Your task to perform on an android device: open app "The Home Depot" (install if not already installed) Image 0: 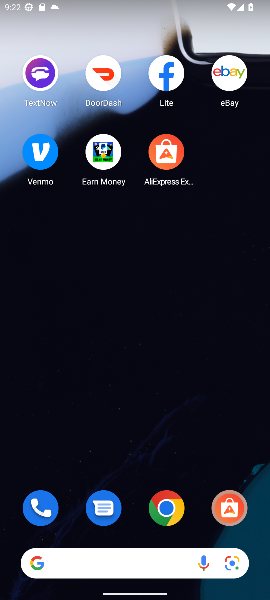
Step 0: drag from (106, 538) to (77, 130)
Your task to perform on an android device: open app "The Home Depot" (install if not already installed) Image 1: 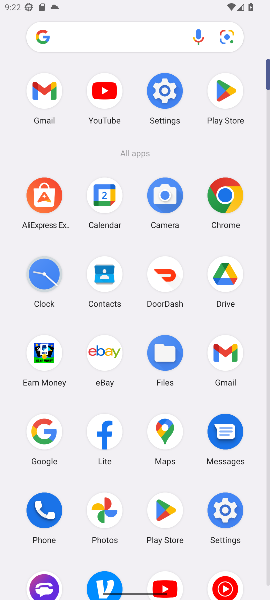
Step 1: click (233, 101)
Your task to perform on an android device: open app "The Home Depot" (install if not already installed) Image 2: 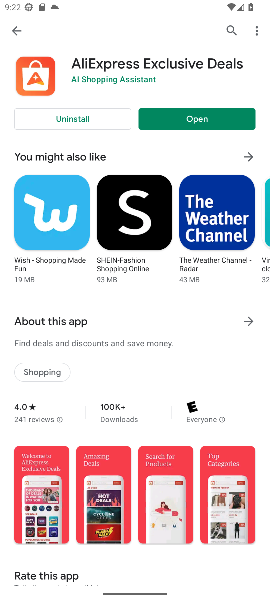
Step 2: click (18, 36)
Your task to perform on an android device: open app "The Home Depot" (install if not already installed) Image 3: 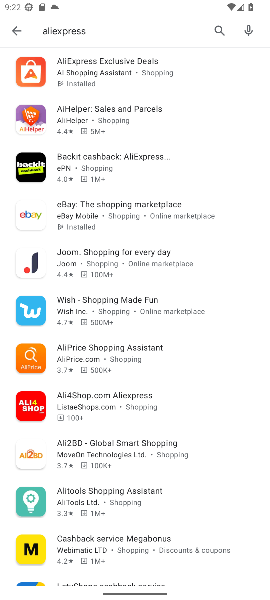
Step 3: click (221, 29)
Your task to perform on an android device: open app "The Home Depot" (install if not already installed) Image 4: 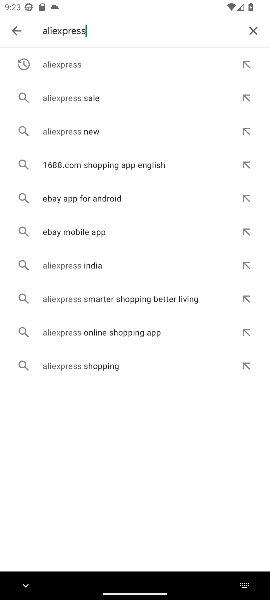
Step 4: click (251, 31)
Your task to perform on an android device: open app "The Home Depot" (install if not already installed) Image 5: 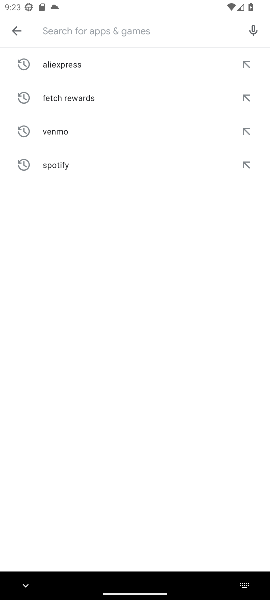
Step 5: type "The Home Depot"
Your task to perform on an android device: open app "The Home Depot" (install if not already installed) Image 6: 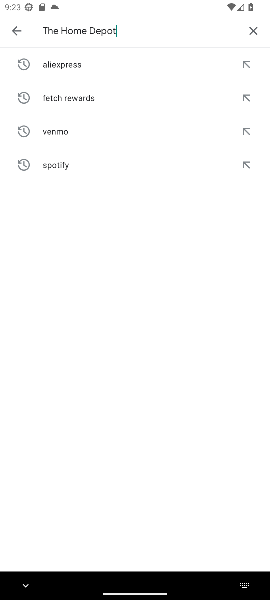
Step 6: type ""
Your task to perform on an android device: open app "The Home Depot" (install if not already installed) Image 7: 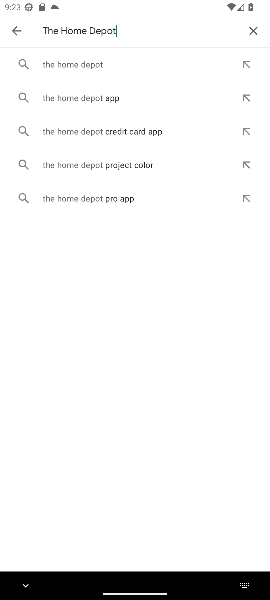
Step 7: click (58, 70)
Your task to perform on an android device: open app "The Home Depot" (install if not already installed) Image 8: 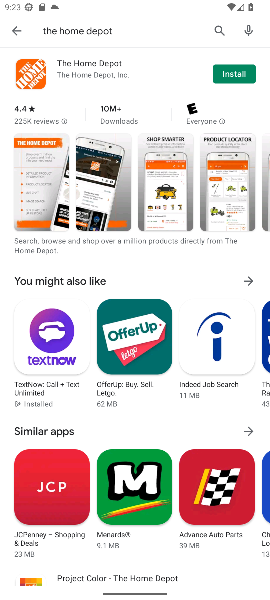
Step 8: click (236, 78)
Your task to perform on an android device: open app "The Home Depot" (install if not already installed) Image 9: 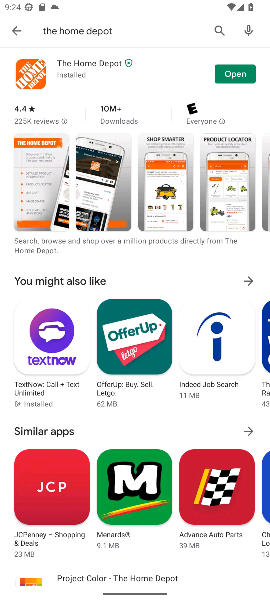
Step 9: click (242, 69)
Your task to perform on an android device: open app "The Home Depot" (install if not already installed) Image 10: 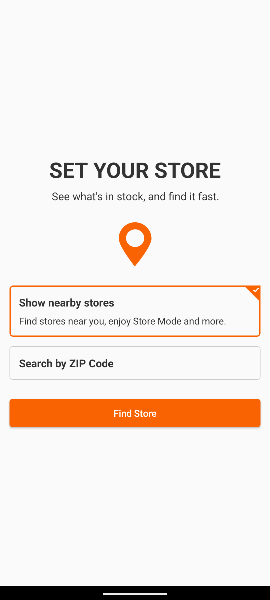
Step 10: task complete